Your task to perform on an android device: What's on the menu at IHOP? Image 0: 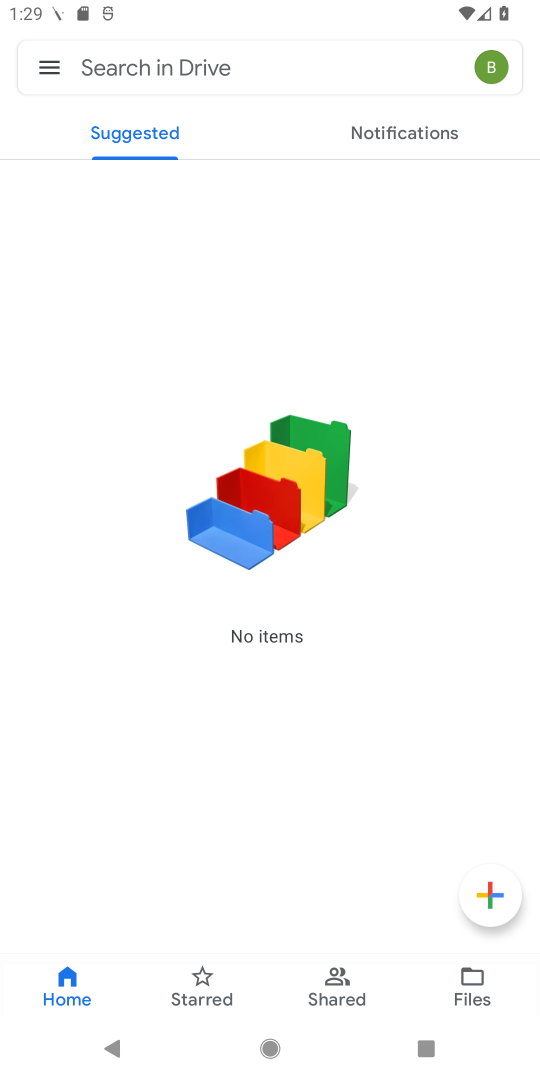
Step 0: press home button
Your task to perform on an android device: What's on the menu at IHOP? Image 1: 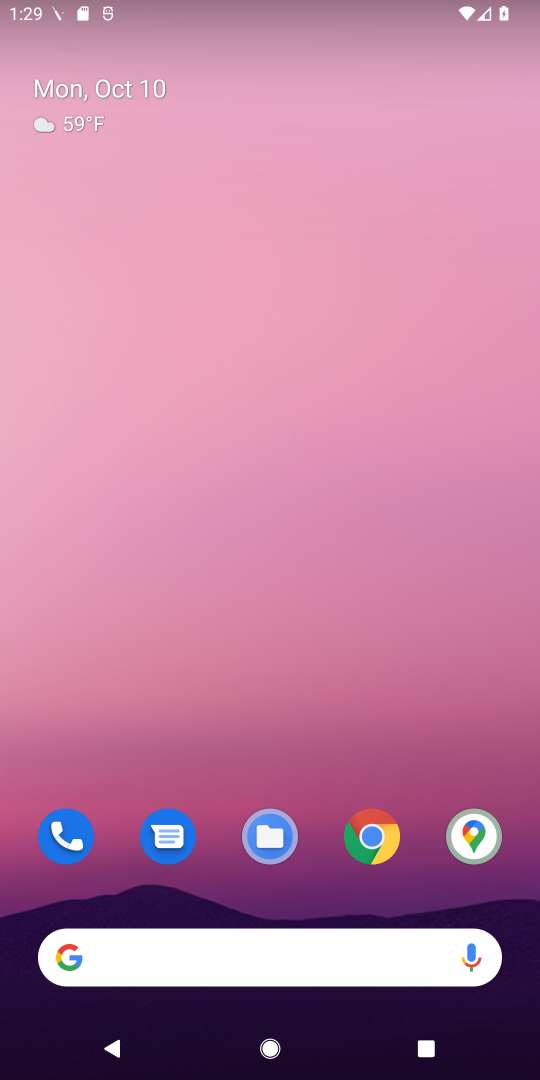
Step 1: click (369, 841)
Your task to perform on an android device: What's on the menu at IHOP? Image 2: 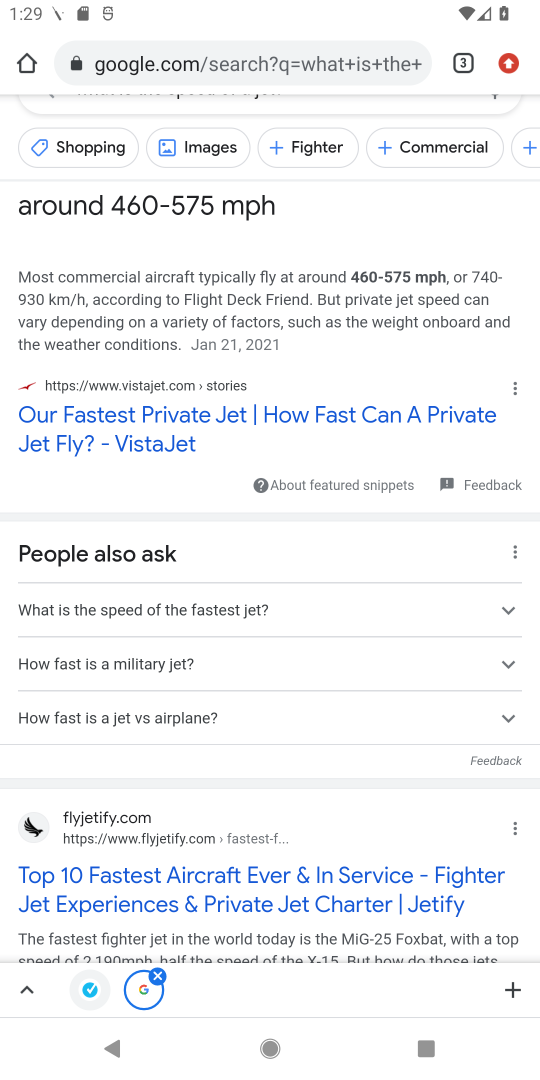
Step 2: click (151, 51)
Your task to perform on an android device: What's on the menu at IHOP? Image 3: 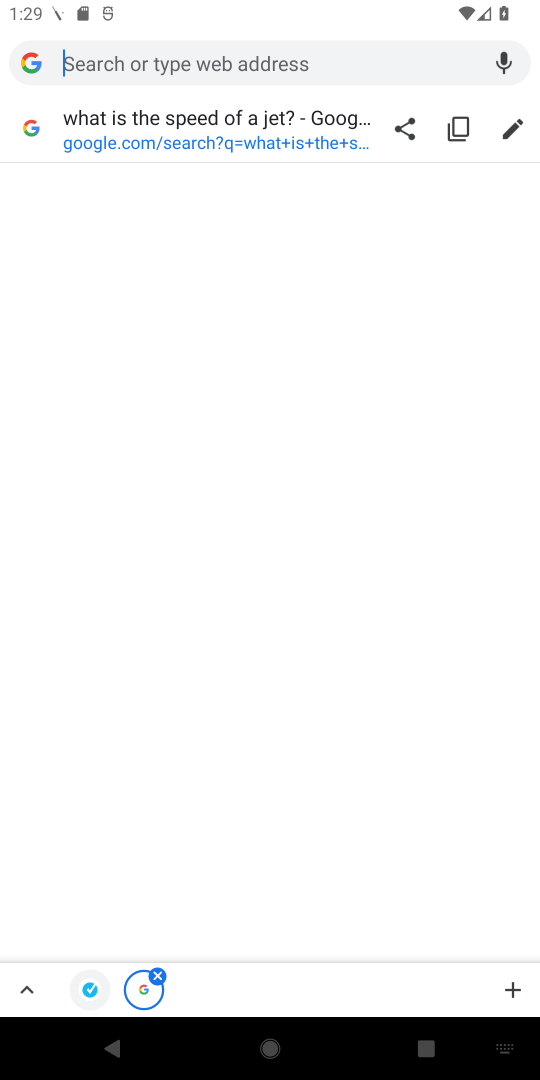
Step 3: type "ihop menu"
Your task to perform on an android device: What's on the menu at IHOP? Image 4: 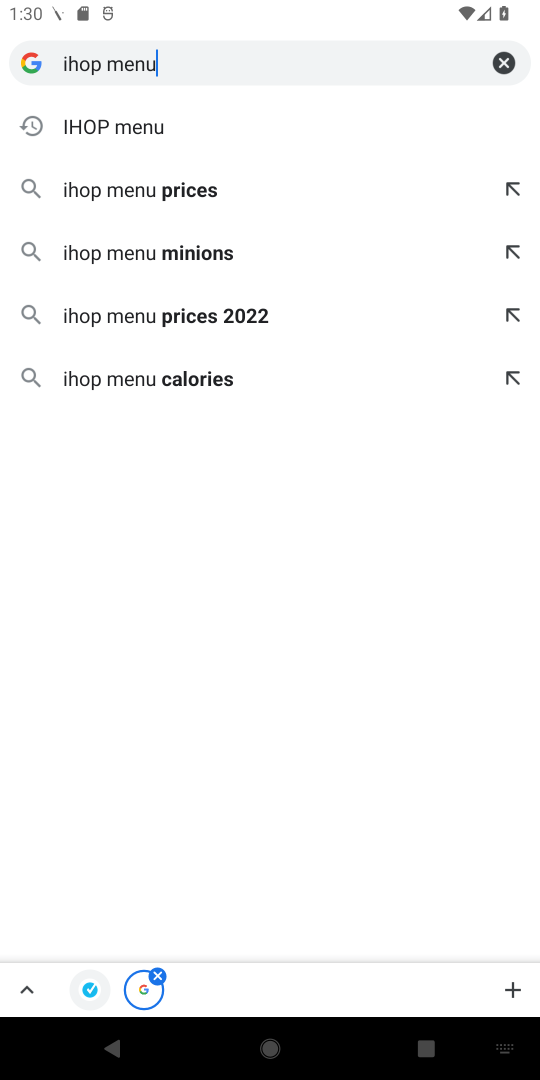
Step 4: click (167, 131)
Your task to perform on an android device: What's on the menu at IHOP? Image 5: 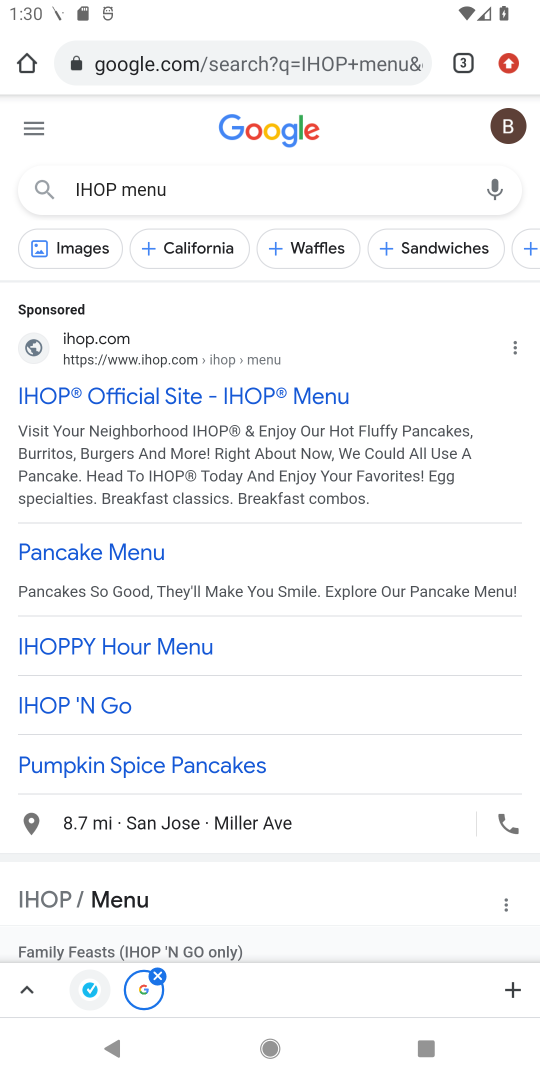
Step 5: drag from (337, 659) to (318, 246)
Your task to perform on an android device: What's on the menu at IHOP? Image 6: 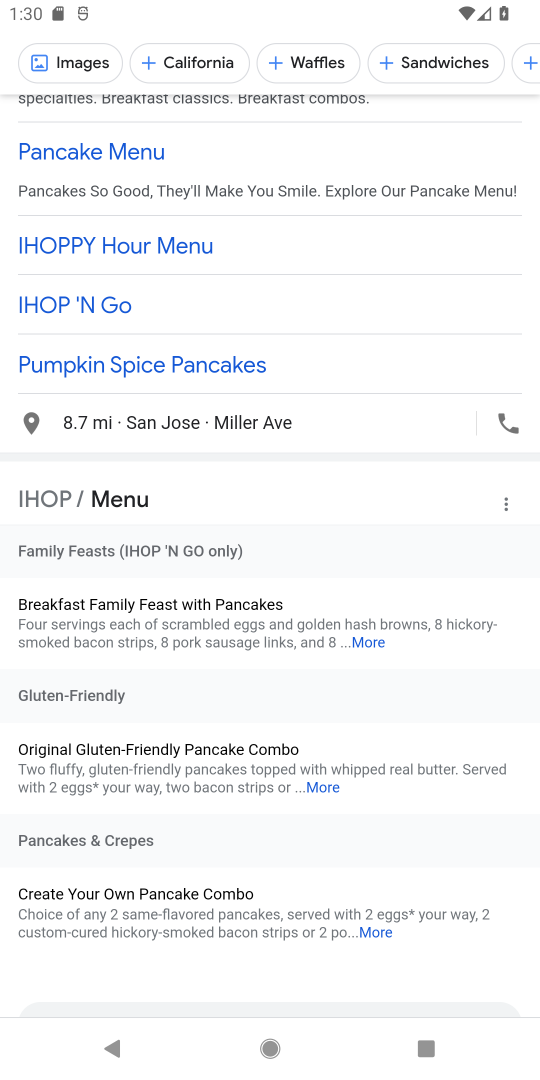
Step 6: drag from (281, 890) to (252, 461)
Your task to perform on an android device: What's on the menu at IHOP? Image 7: 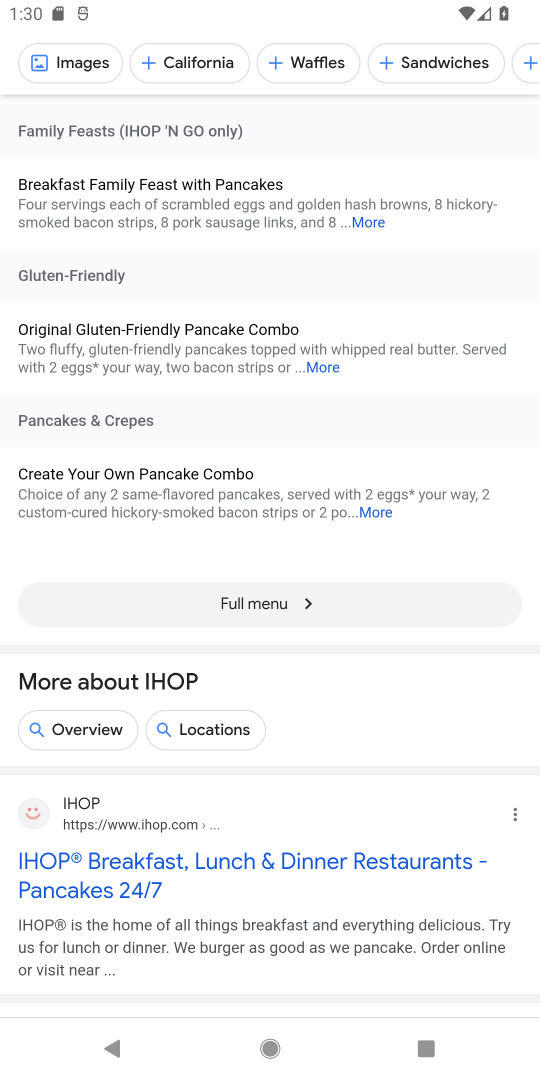
Step 7: click (295, 611)
Your task to perform on an android device: What's on the menu at IHOP? Image 8: 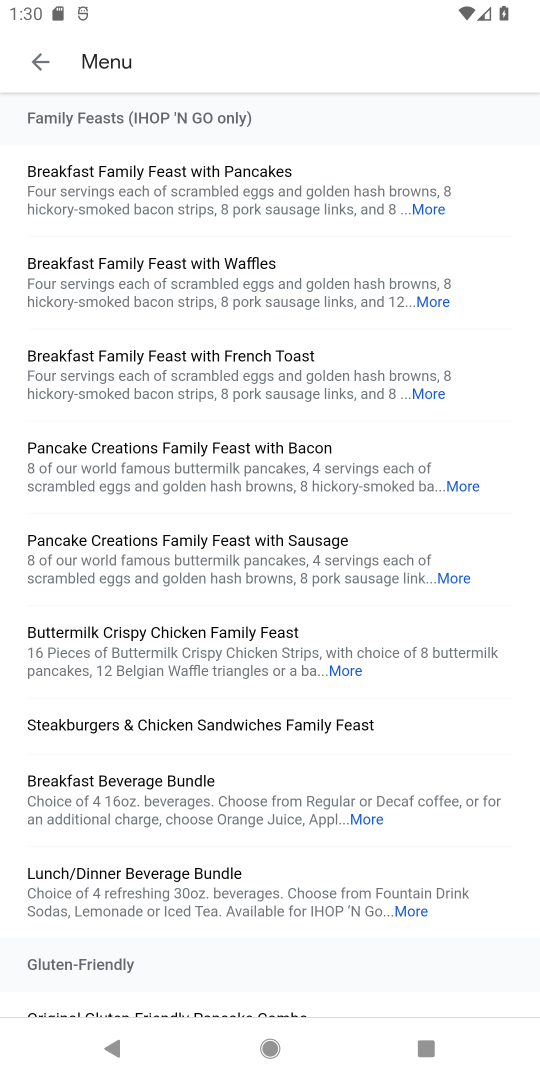
Step 8: task complete